Your task to perform on an android device: turn on location history Image 0: 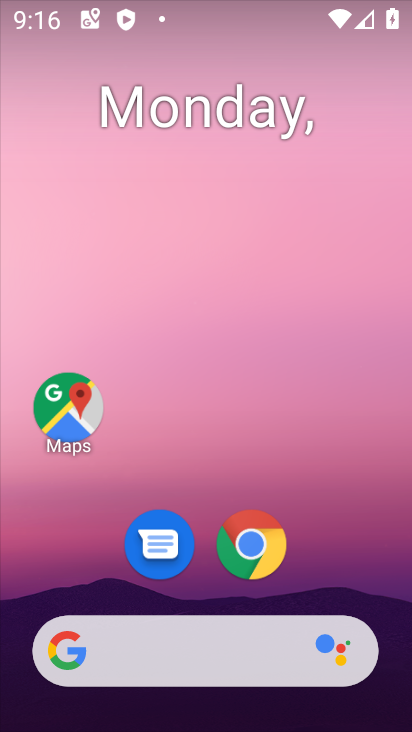
Step 0: drag from (330, 520) to (267, 42)
Your task to perform on an android device: turn on location history Image 1: 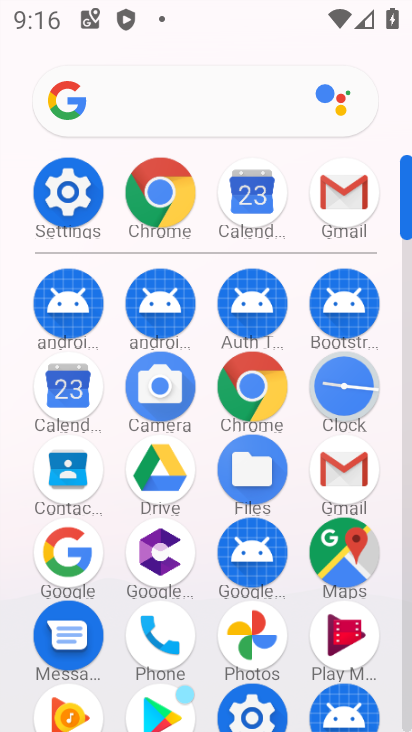
Step 1: click (337, 554)
Your task to perform on an android device: turn on location history Image 2: 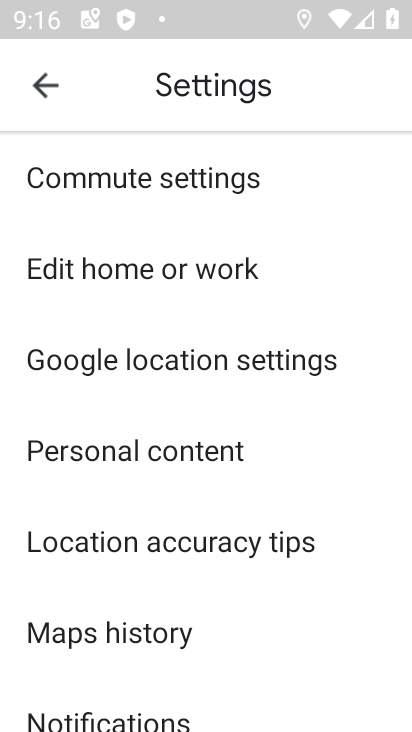
Step 2: click (38, 86)
Your task to perform on an android device: turn on location history Image 3: 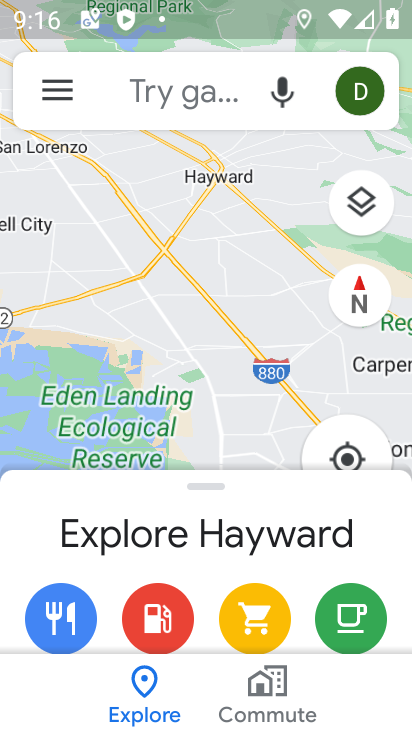
Step 3: click (48, 77)
Your task to perform on an android device: turn on location history Image 4: 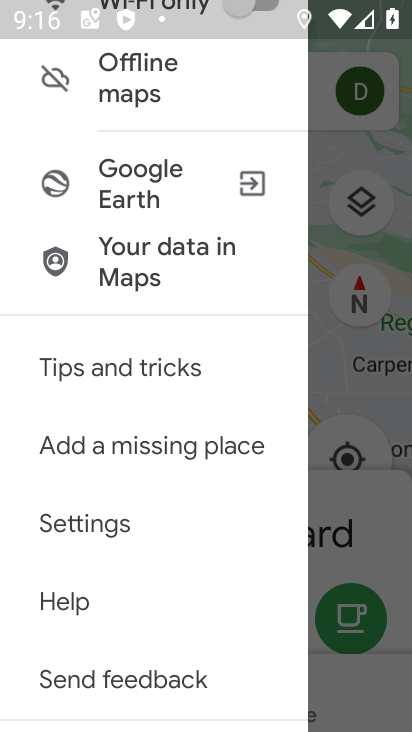
Step 4: drag from (186, 142) to (186, 513)
Your task to perform on an android device: turn on location history Image 5: 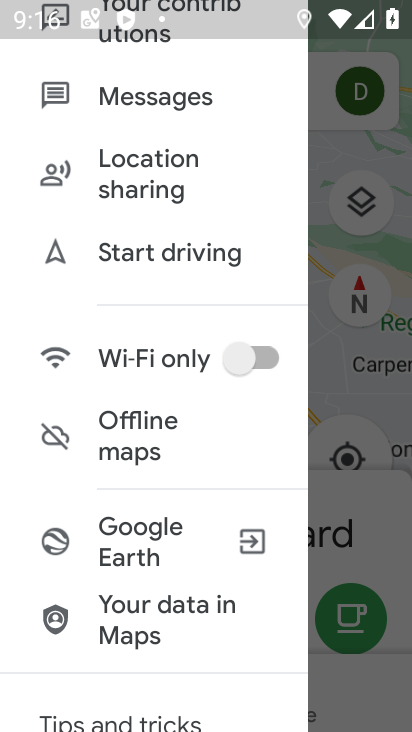
Step 5: drag from (178, 125) to (141, 628)
Your task to perform on an android device: turn on location history Image 6: 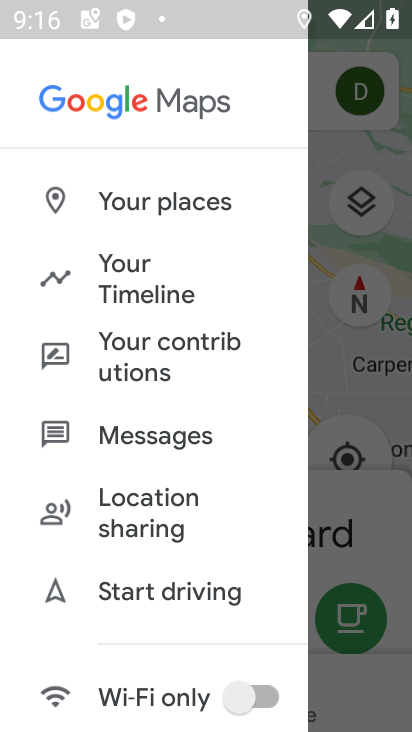
Step 6: click (118, 277)
Your task to perform on an android device: turn on location history Image 7: 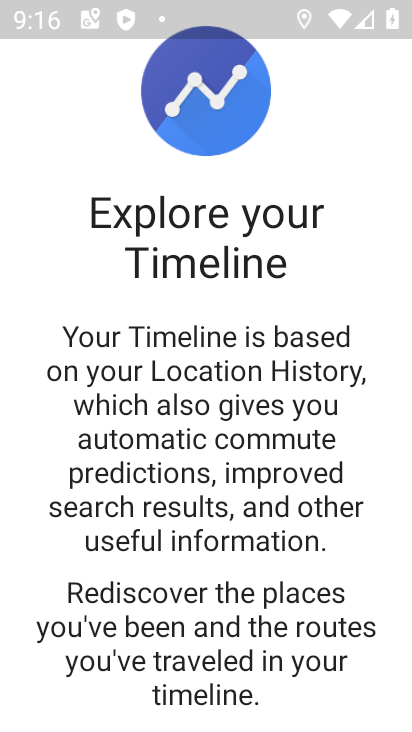
Step 7: drag from (302, 542) to (279, 17)
Your task to perform on an android device: turn on location history Image 8: 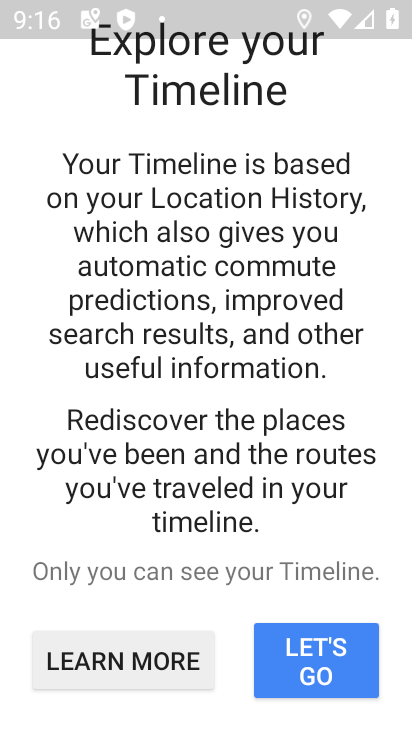
Step 8: click (306, 651)
Your task to perform on an android device: turn on location history Image 9: 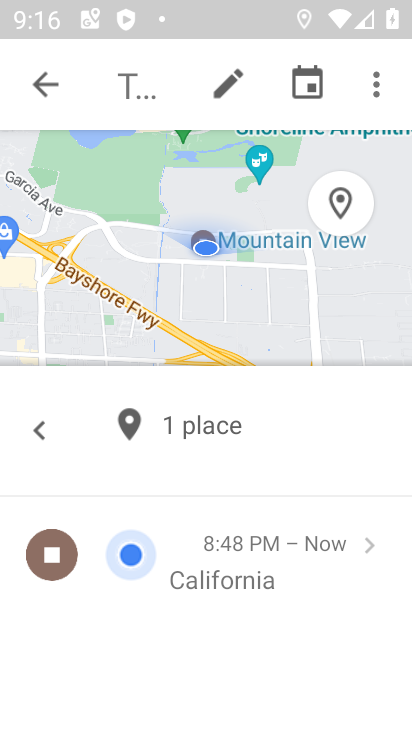
Step 9: click (377, 87)
Your task to perform on an android device: turn on location history Image 10: 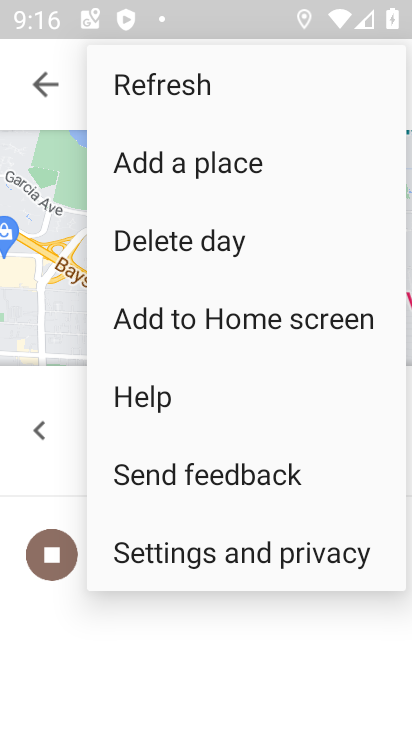
Step 10: click (267, 555)
Your task to perform on an android device: turn on location history Image 11: 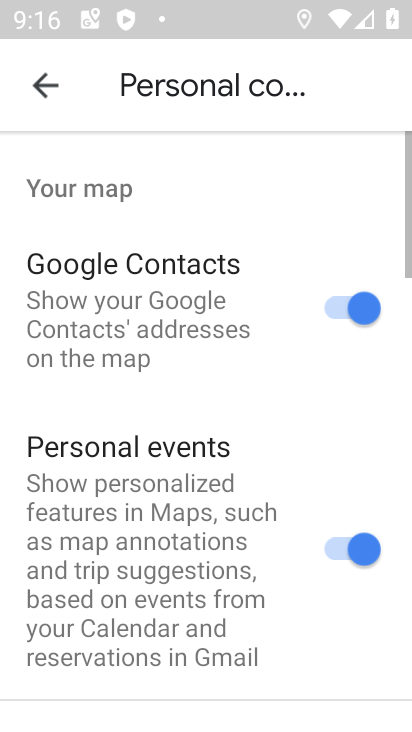
Step 11: drag from (279, 540) to (248, 94)
Your task to perform on an android device: turn on location history Image 12: 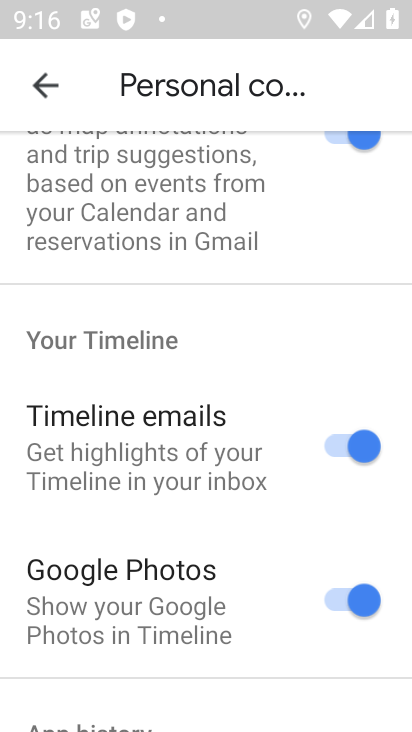
Step 12: drag from (243, 512) to (217, 157)
Your task to perform on an android device: turn on location history Image 13: 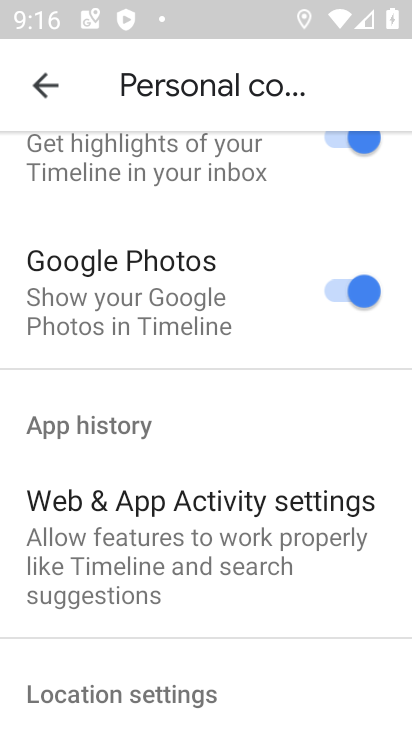
Step 13: drag from (253, 427) to (259, 102)
Your task to perform on an android device: turn on location history Image 14: 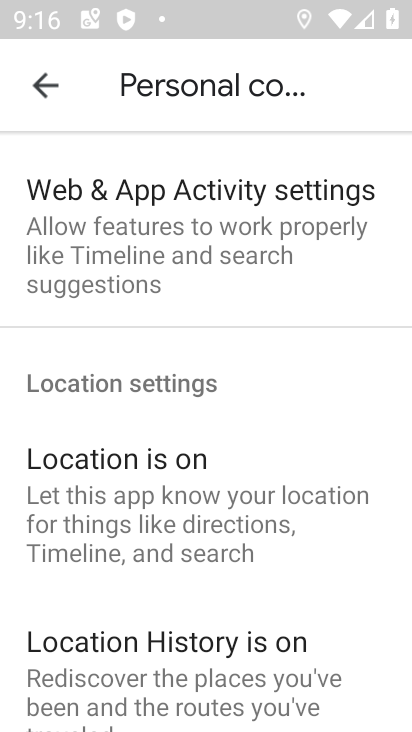
Step 14: drag from (270, 595) to (237, 193)
Your task to perform on an android device: turn on location history Image 15: 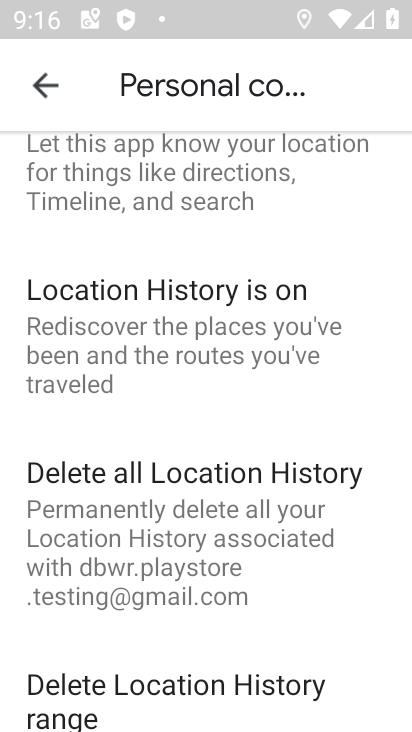
Step 15: click (184, 282)
Your task to perform on an android device: turn on location history Image 16: 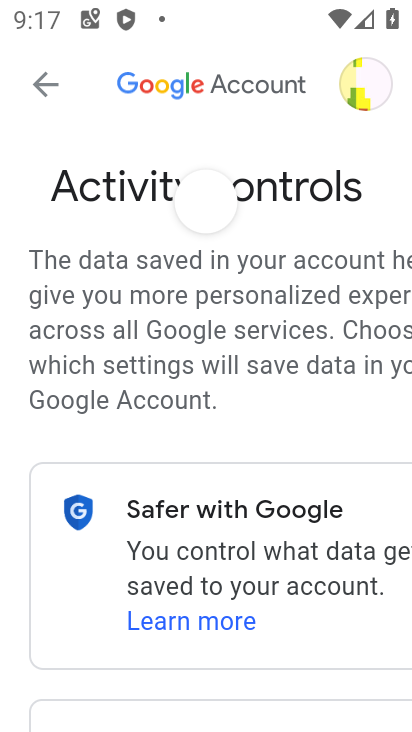
Step 16: task complete